Your task to perform on an android device: Do I have any events this weekend? Image 0: 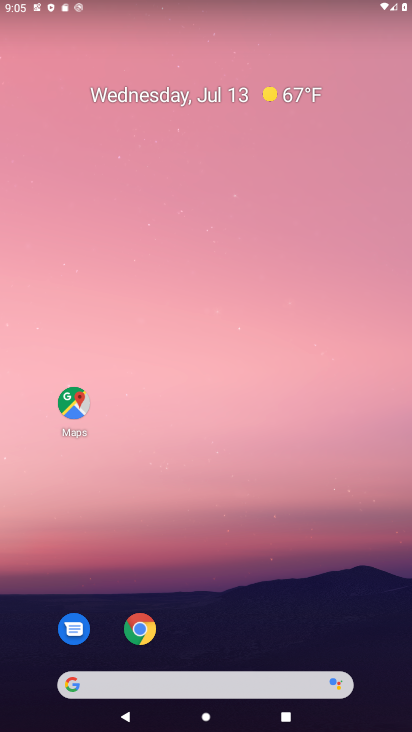
Step 0: drag from (203, 626) to (253, 0)
Your task to perform on an android device: Do I have any events this weekend? Image 1: 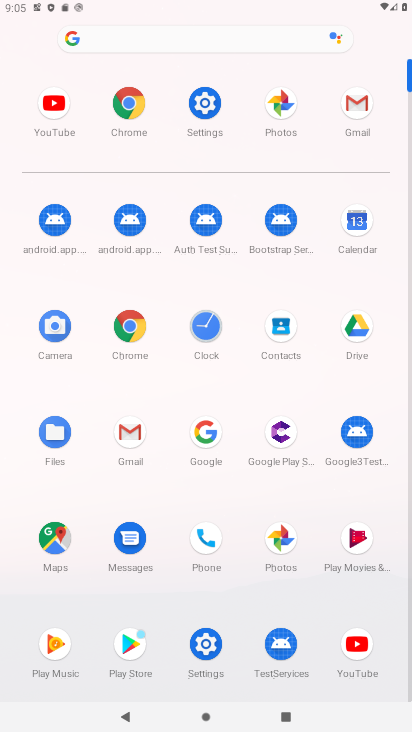
Step 1: click (366, 217)
Your task to perform on an android device: Do I have any events this weekend? Image 2: 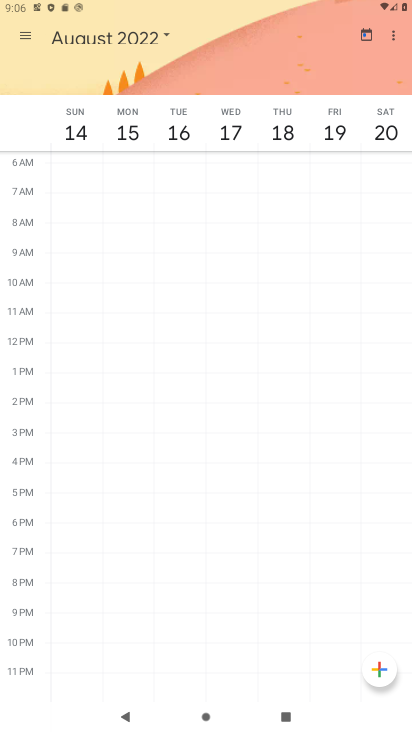
Step 2: click (23, 40)
Your task to perform on an android device: Do I have any events this weekend? Image 3: 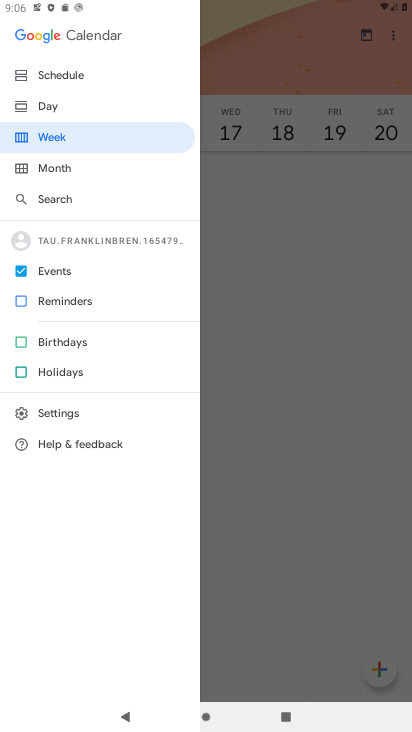
Step 3: click (79, 130)
Your task to perform on an android device: Do I have any events this weekend? Image 4: 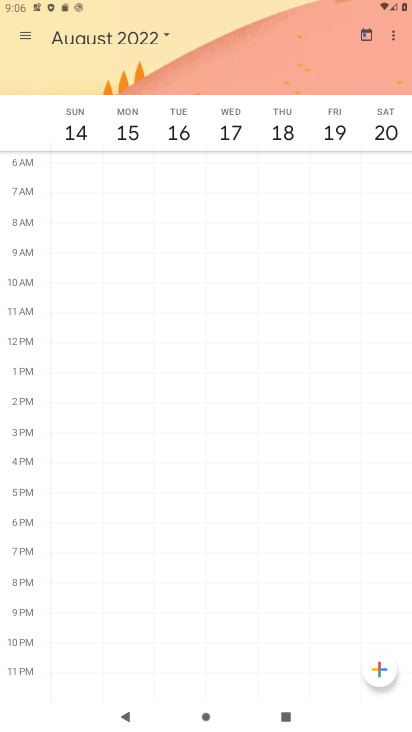
Step 4: task complete